Your task to perform on an android device: Open CNN.com Image 0: 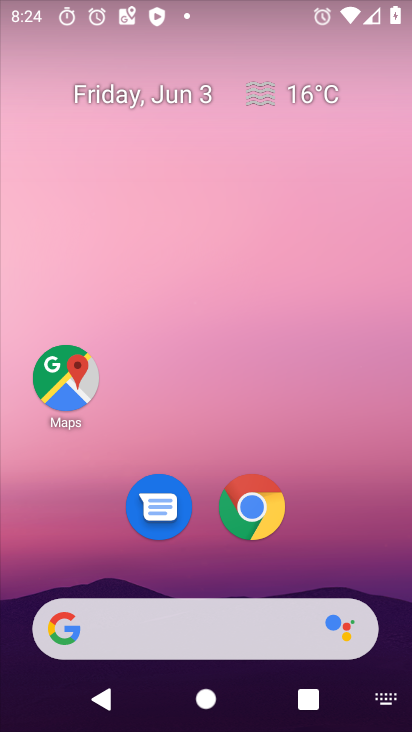
Step 0: click (270, 513)
Your task to perform on an android device: Open CNN.com Image 1: 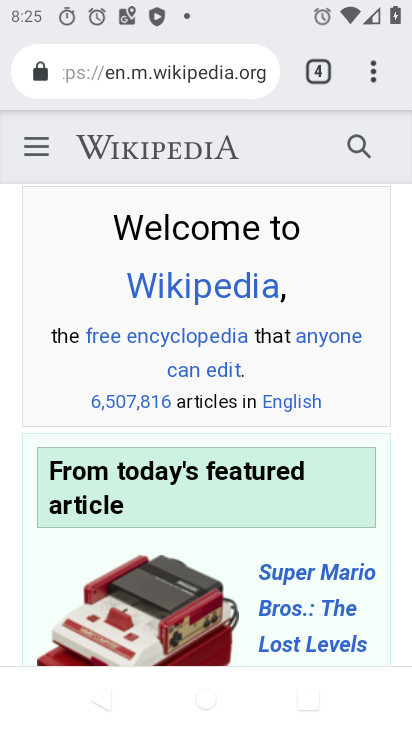
Step 1: click (312, 84)
Your task to perform on an android device: Open CNN.com Image 2: 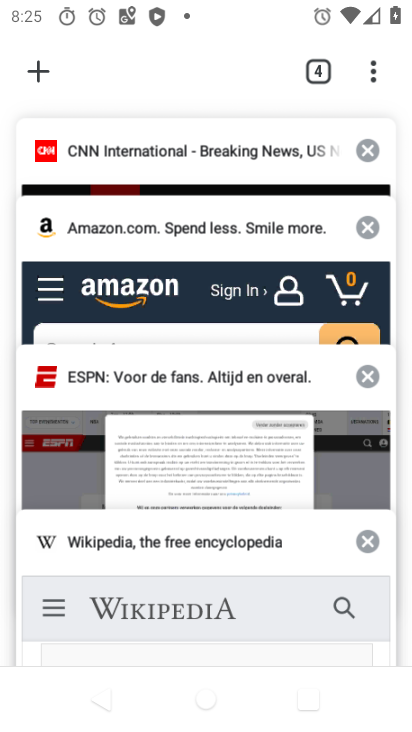
Step 2: drag from (165, 151) to (170, 692)
Your task to perform on an android device: Open CNN.com Image 3: 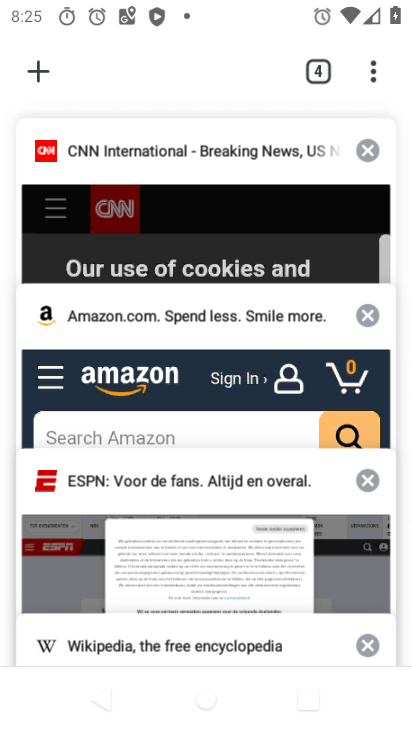
Step 3: click (126, 152)
Your task to perform on an android device: Open CNN.com Image 4: 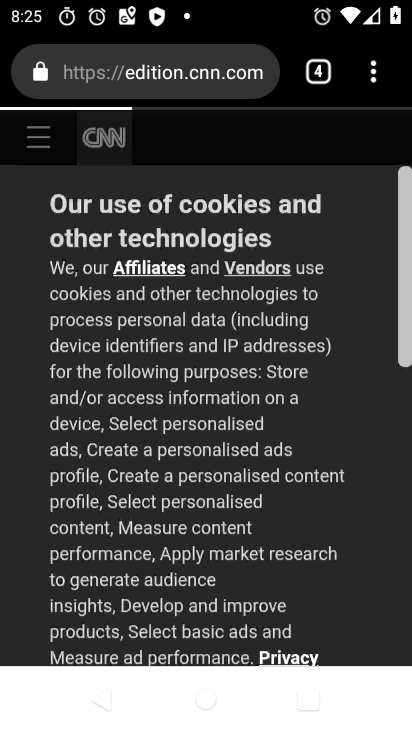
Step 4: task complete